Your task to perform on an android device: open wifi settings Image 0: 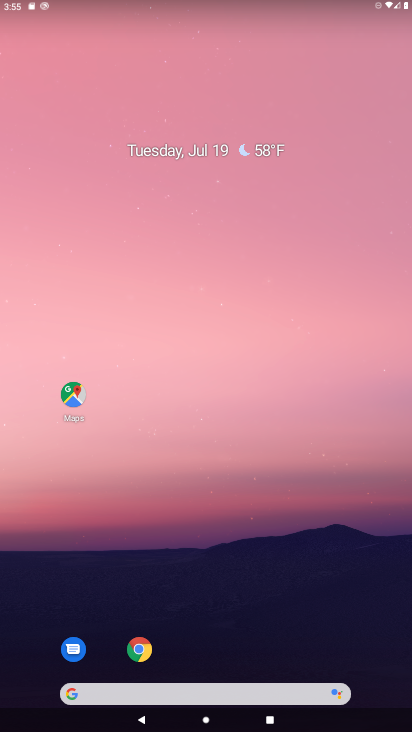
Step 0: drag from (229, 724) to (236, 97)
Your task to perform on an android device: open wifi settings Image 1: 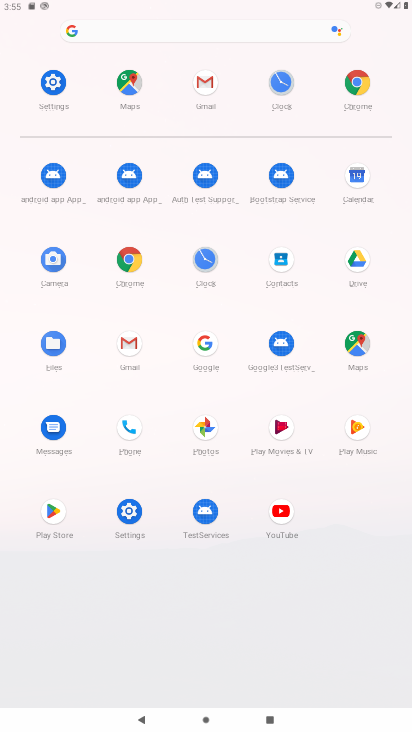
Step 1: click (57, 91)
Your task to perform on an android device: open wifi settings Image 2: 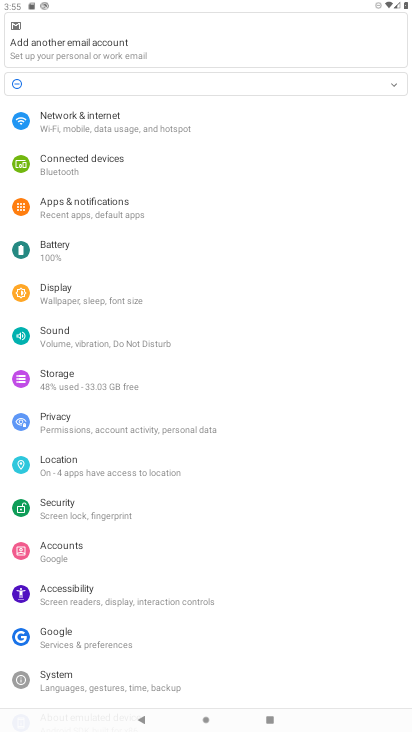
Step 2: click (66, 119)
Your task to perform on an android device: open wifi settings Image 3: 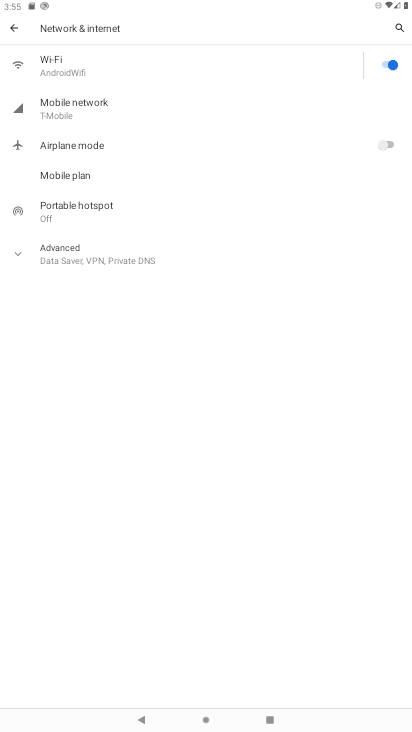
Step 3: click (51, 61)
Your task to perform on an android device: open wifi settings Image 4: 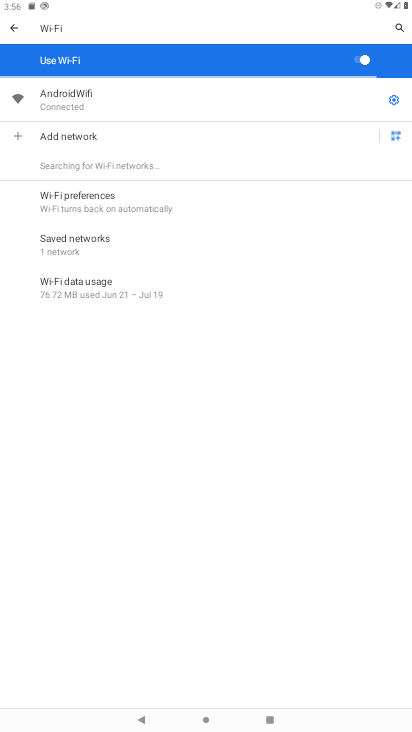
Step 4: task complete